Your task to perform on an android device: open app "YouTube Kids" Image 0: 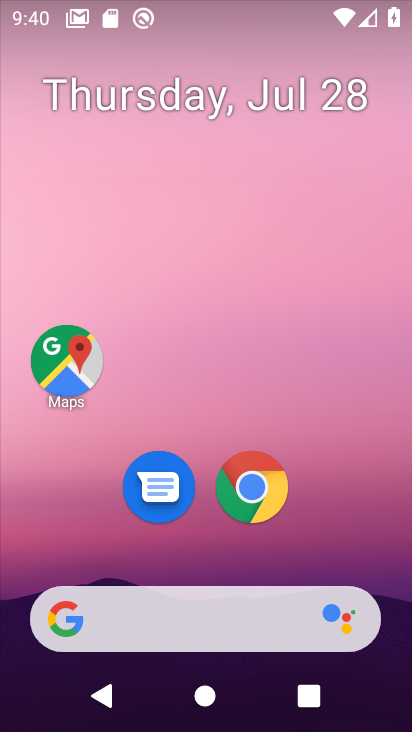
Step 0: click (238, 324)
Your task to perform on an android device: open app "YouTube Kids" Image 1: 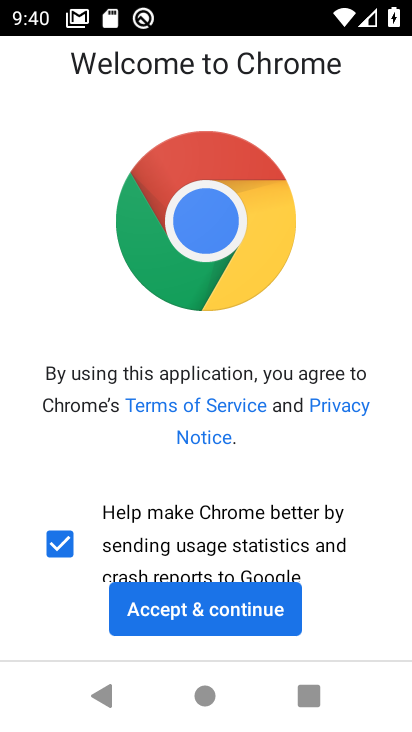
Step 1: drag from (267, 506) to (271, 293)
Your task to perform on an android device: open app "YouTube Kids" Image 2: 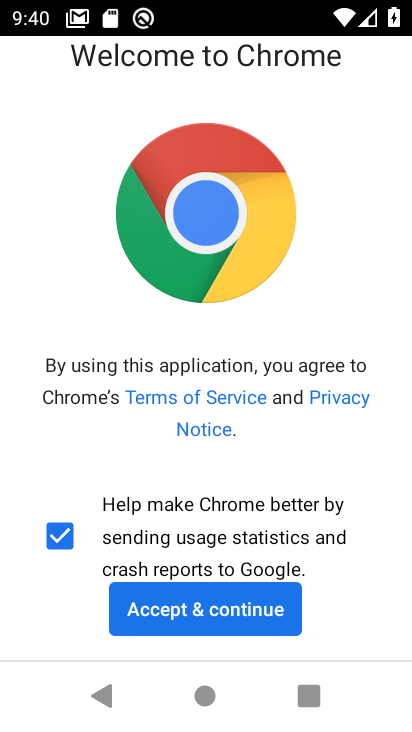
Step 2: drag from (205, 547) to (230, 270)
Your task to perform on an android device: open app "YouTube Kids" Image 3: 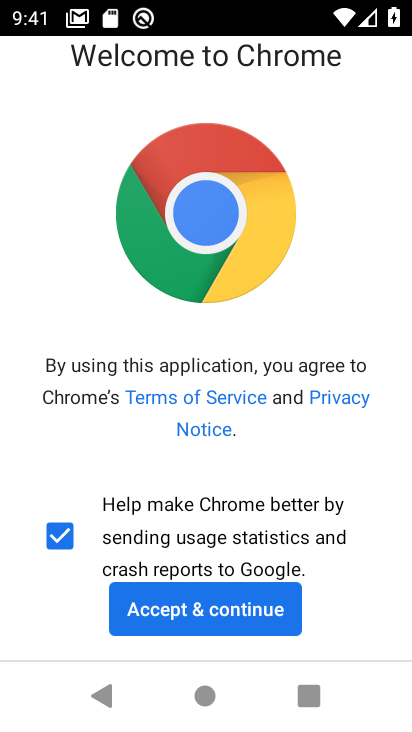
Step 3: drag from (226, 542) to (269, 227)
Your task to perform on an android device: open app "YouTube Kids" Image 4: 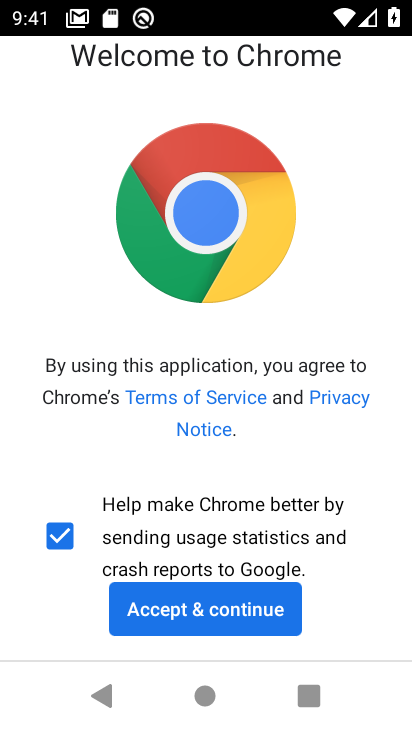
Step 4: drag from (272, 512) to (281, 353)
Your task to perform on an android device: open app "YouTube Kids" Image 5: 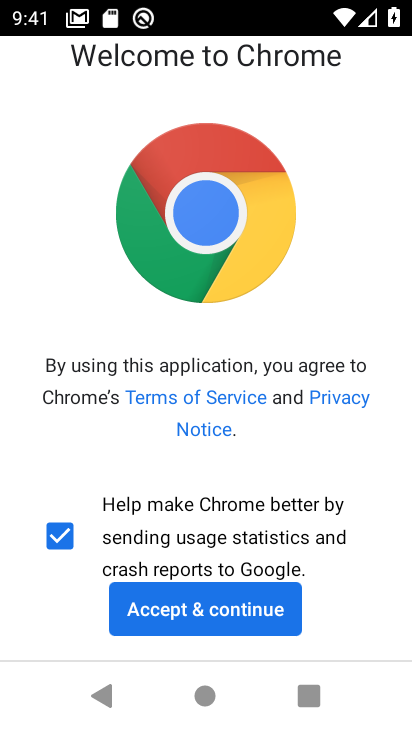
Step 5: drag from (254, 517) to (105, 167)
Your task to perform on an android device: open app "YouTube Kids" Image 6: 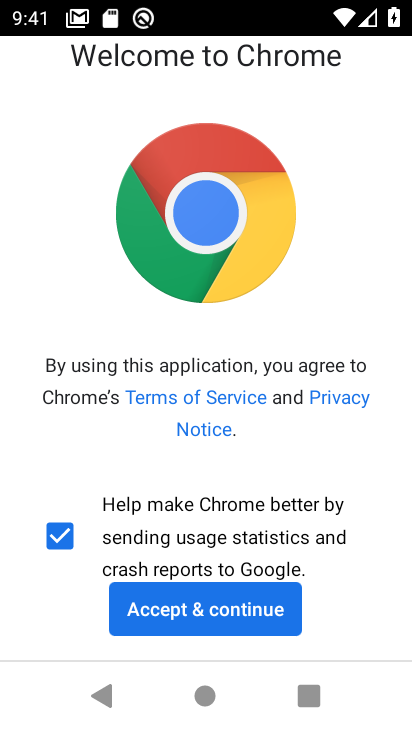
Step 6: press home button
Your task to perform on an android device: open app "YouTube Kids" Image 7: 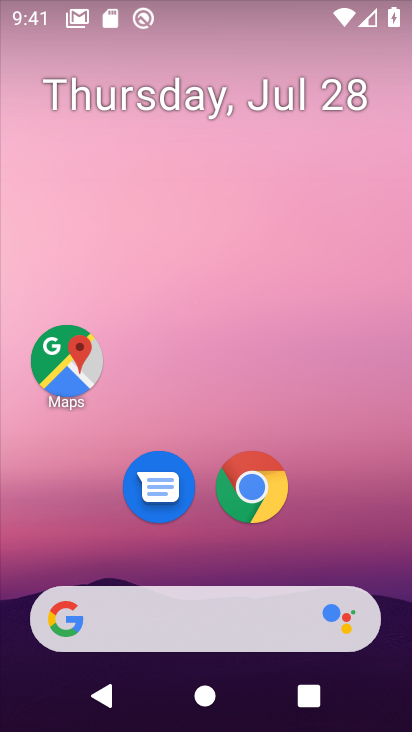
Step 7: drag from (209, 536) to (213, 160)
Your task to perform on an android device: open app "YouTube Kids" Image 8: 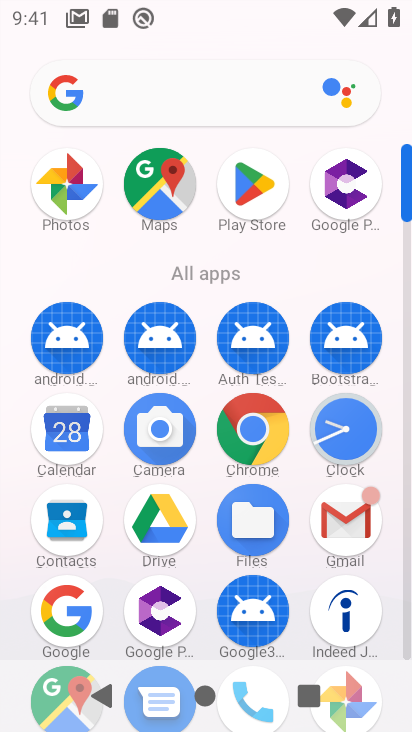
Step 8: click (244, 167)
Your task to perform on an android device: open app "YouTube Kids" Image 9: 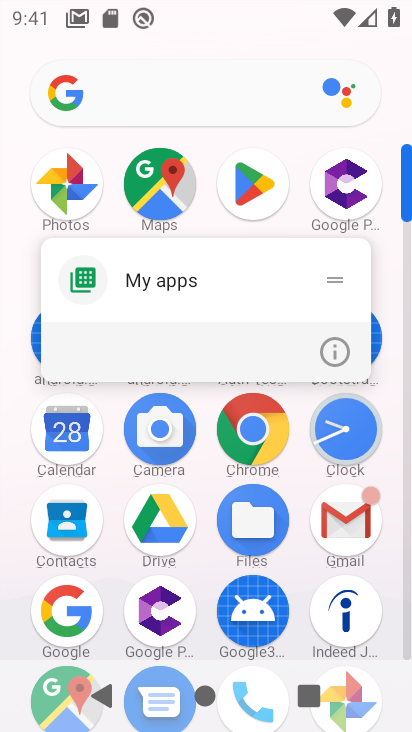
Step 9: click (329, 347)
Your task to perform on an android device: open app "YouTube Kids" Image 10: 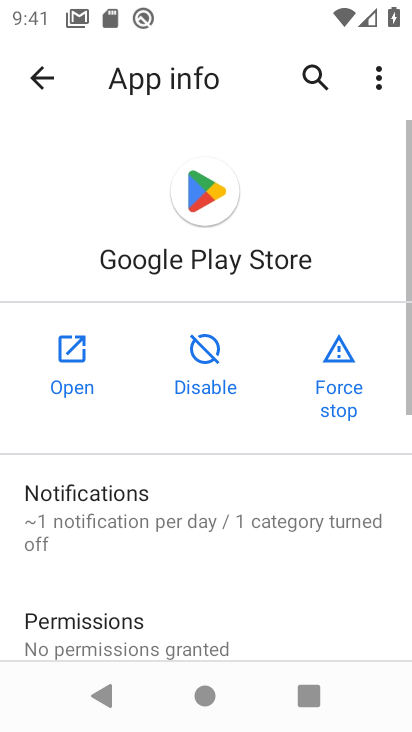
Step 10: click (79, 361)
Your task to perform on an android device: open app "YouTube Kids" Image 11: 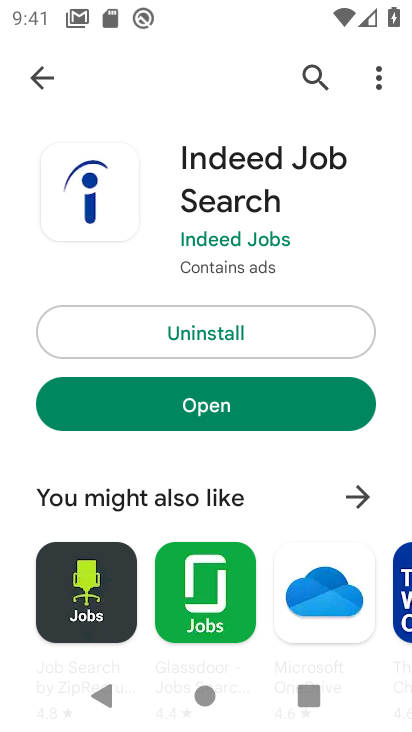
Step 11: click (307, 69)
Your task to perform on an android device: open app "YouTube Kids" Image 12: 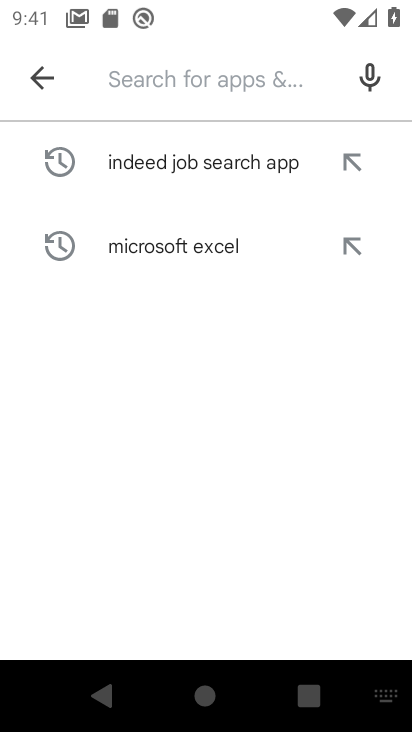
Step 12: type "YouTube Kids"
Your task to perform on an android device: open app "YouTube Kids" Image 13: 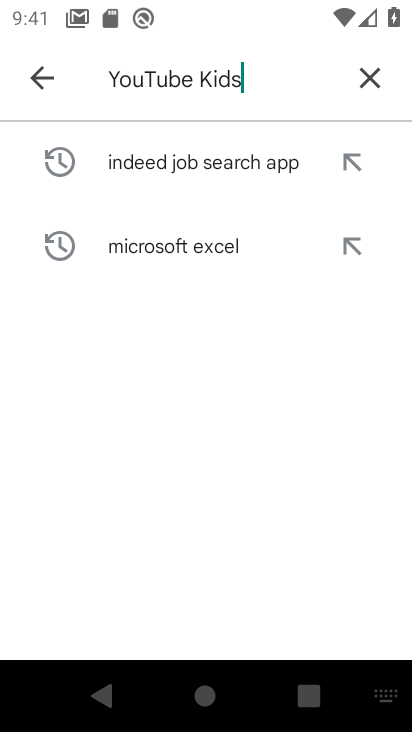
Step 13: type ""
Your task to perform on an android device: open app "YouTube Kids" Image 14: 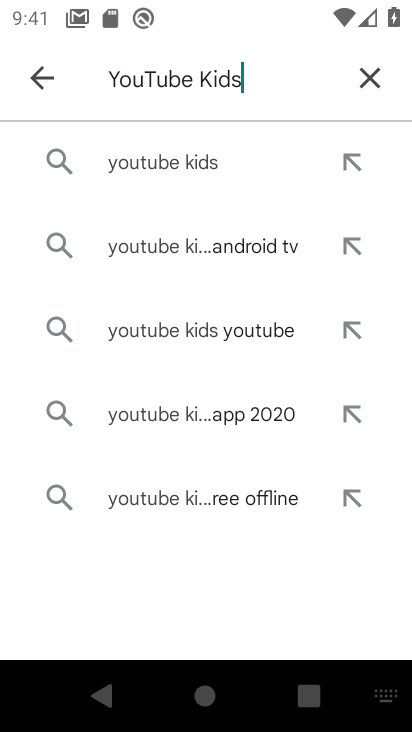
Step 14: click (166, 181)
Your task to perform on an android device: open app "YouTube Kids" Image 15: 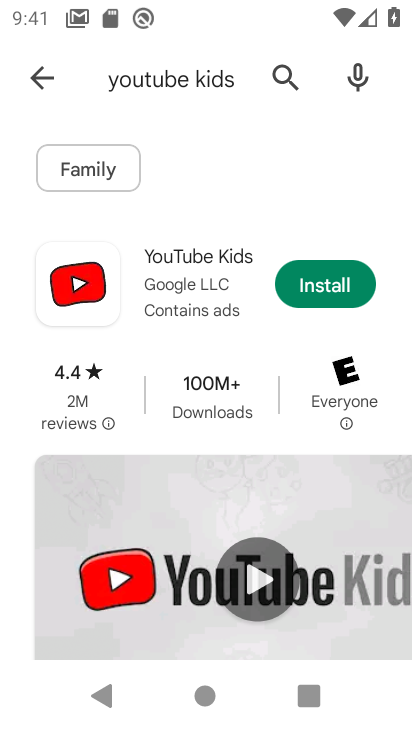
Step 15: task complete